Your task to perform on an android device: Turn off the flashlight Image 0: 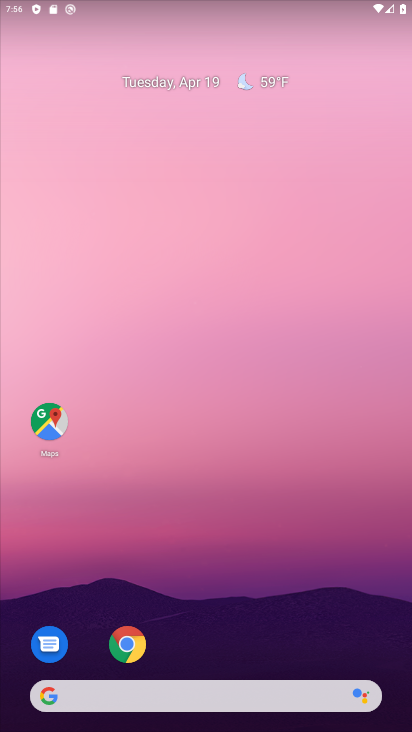
Step 0: drag from (240, 595) to (303, 178)
Your task to perform on an android device: Turn off the flashlight Image 1: 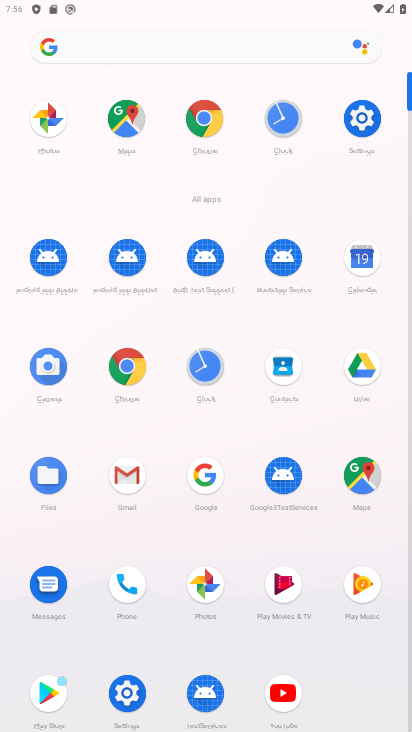
Step 1: click (365, 119)
Your task to perform on an android device: Turn off the flashlight Image 2: 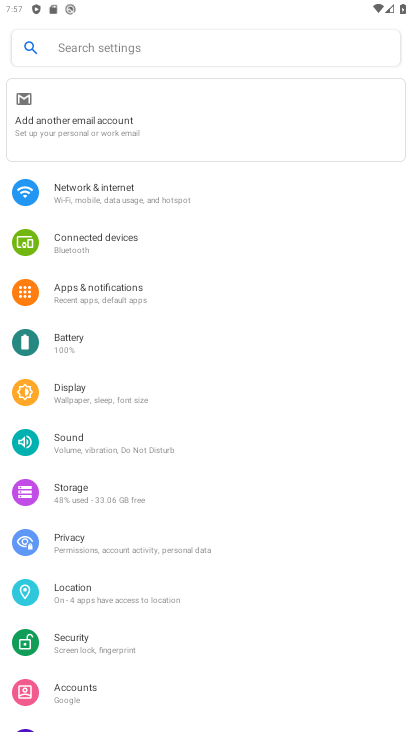
Step 2: click (198, 57)
Your task to perform on an android device: Turn off the flashlight Image 3: 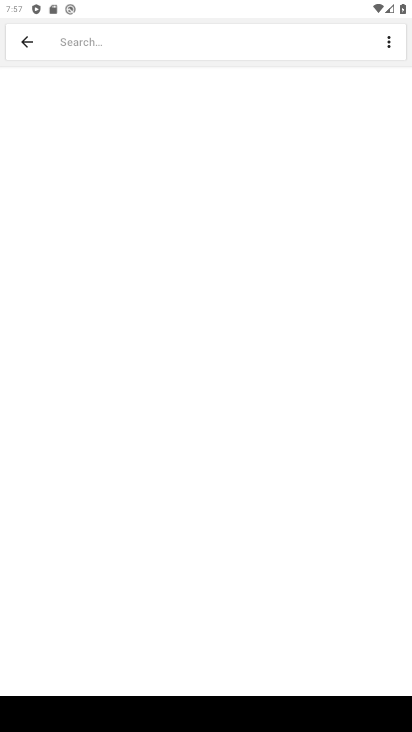
Step 3: type "Flashlight"
Your task to perform on an android device: Turn off the flashlight Image 4: 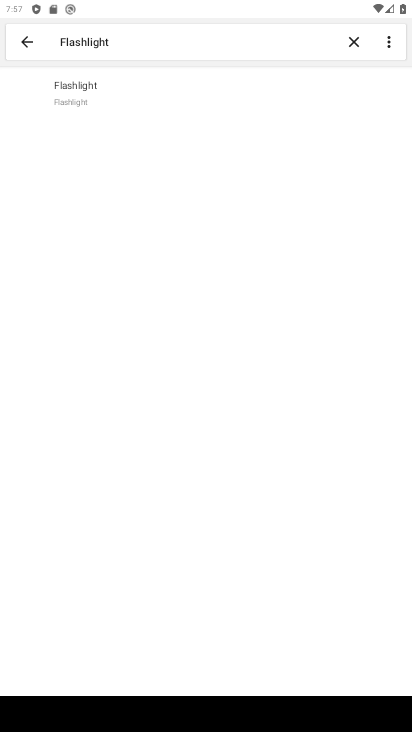
Step 4: click (118, 107)
Your task to perform on an android device: Turn off the flashlight Image 5: 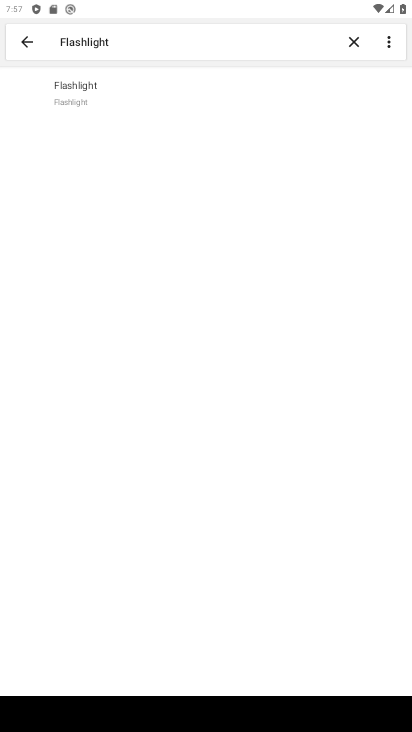
Step 5: task complete